Your task to perform on an android device: toggle data saver in the chrome app Image 0: 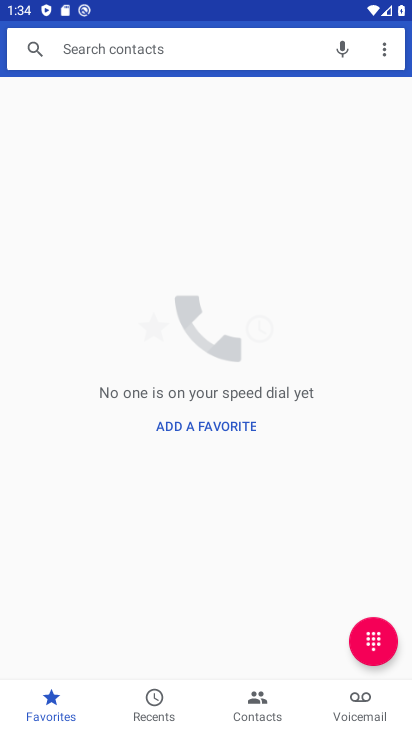
Step 0: press home button
Your task to perform on an android device: toggle data saver in the chrome app Image 1: 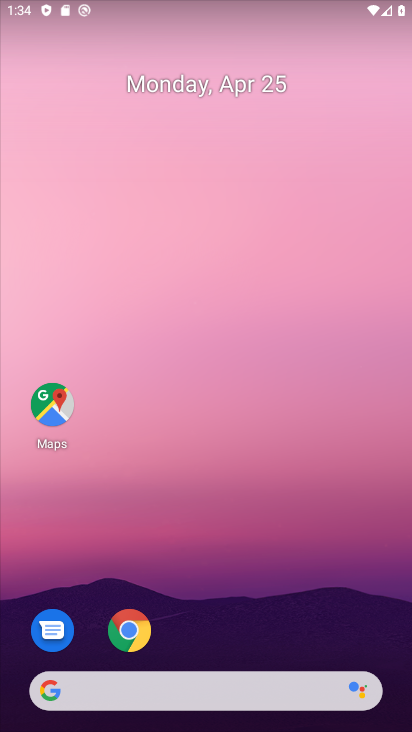
Step 1: drag from (176, 364) to (149, 89)
Your task to perform on an android device: toggle data saver in the chrome app Image 2: 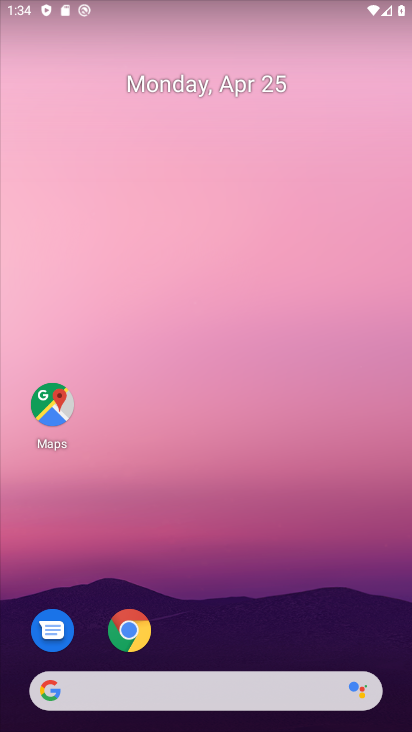
Step 2: drag from (201, 654) to (124, 731)
Your task to perform on an android device: toggle data saver in the chrome app Image 3: 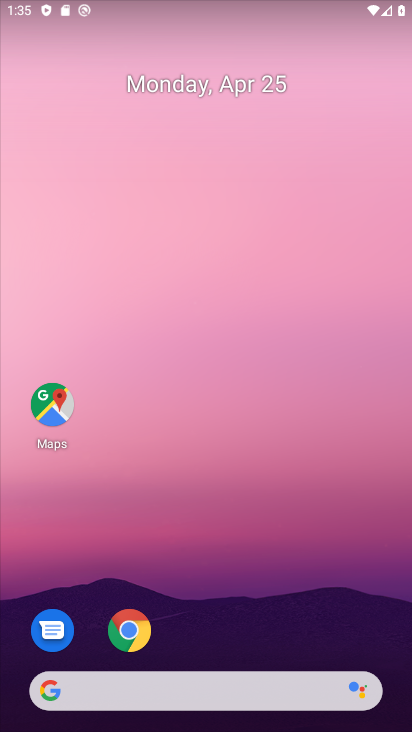
Step 3: drag from (213, 661) to (154, 29)
Your task to perform on an android device: toggle data saver in the chrome app Image 4: 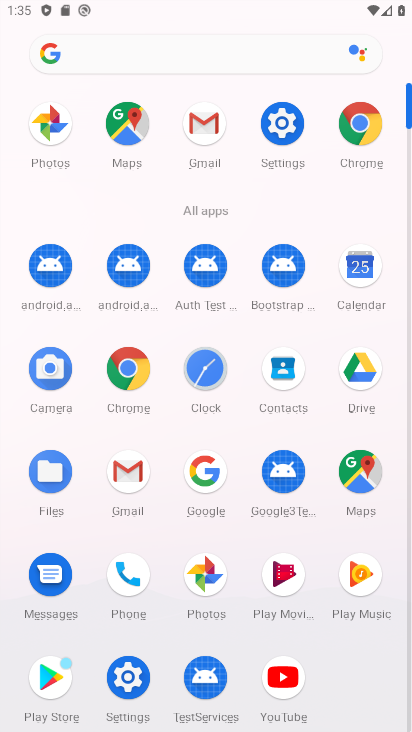
Step 4: click (354, 128)
Your task to perform on an android device: toggle data saver in the chrome app Image 5: 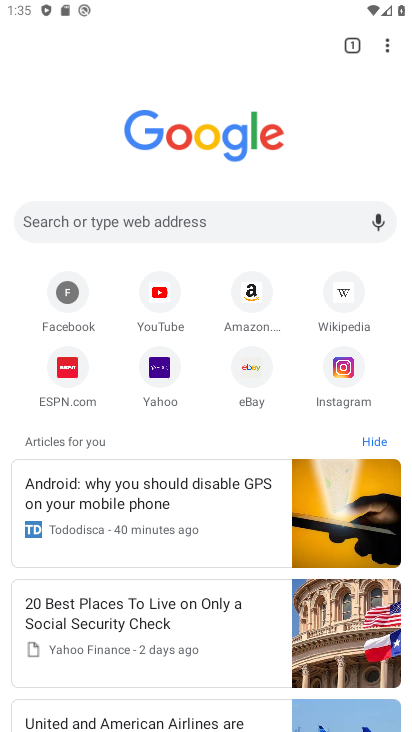
Step 5: drag from (387, 44) to (230, 375)
Your task to perform on an android device: toggle data saver in the chrome app Image 6: 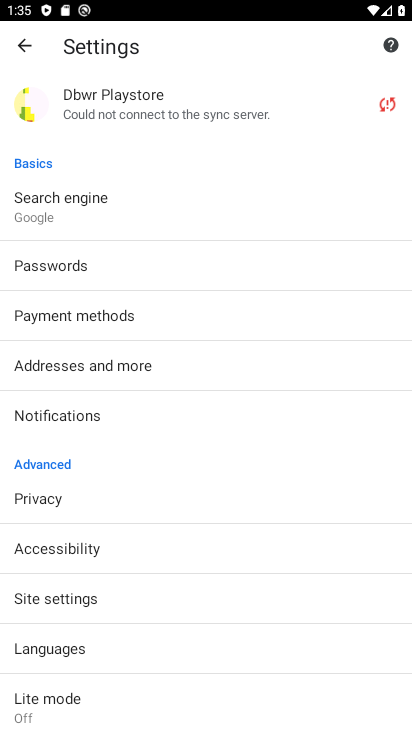
Step 6: drag from (232, 560) to (232, 264)
Your task to perform on an android device: toggle data saver in the chrome app Image 7: 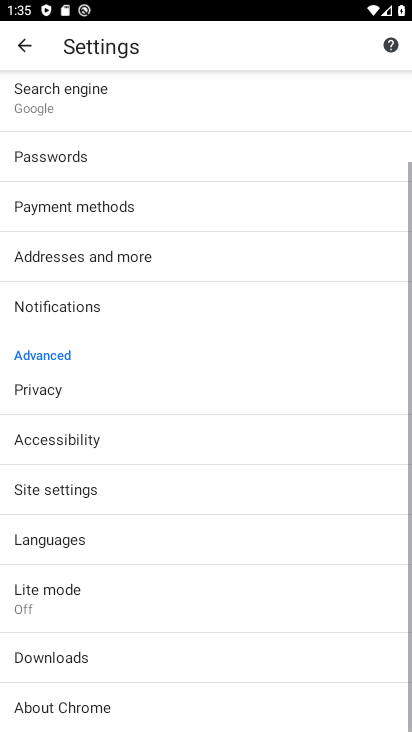
Step 7: click (55, 572)
Your task to perform on an android device: toggle data saver in the chrome app Image 8: 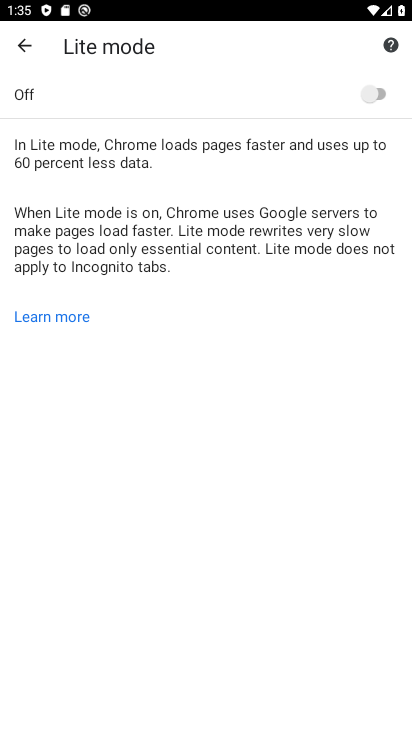
Step 8: click (372, 87)
Your task to perform on an android device: toggle data saver in the chrome app Image 9: 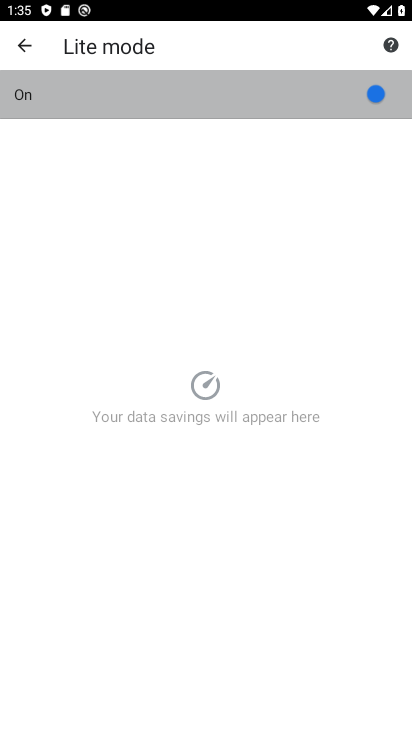
Step 9: task complete